Your task to perform on an android device: See recent photos Image 0: 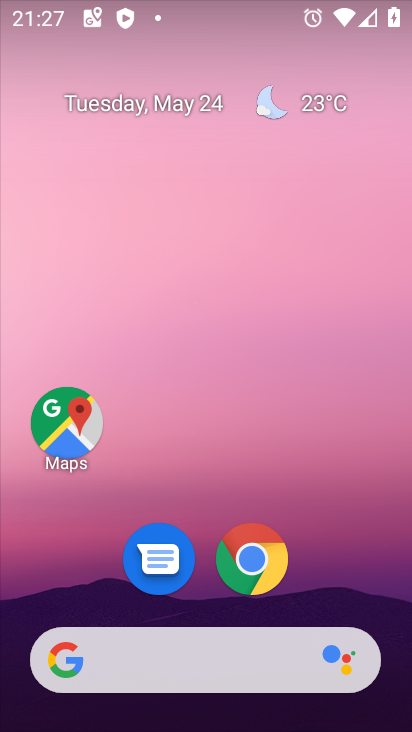
Step 0: drag from (371, 576) to (302, 160)
Your task to perform on an android device: See recent photos Image 1: 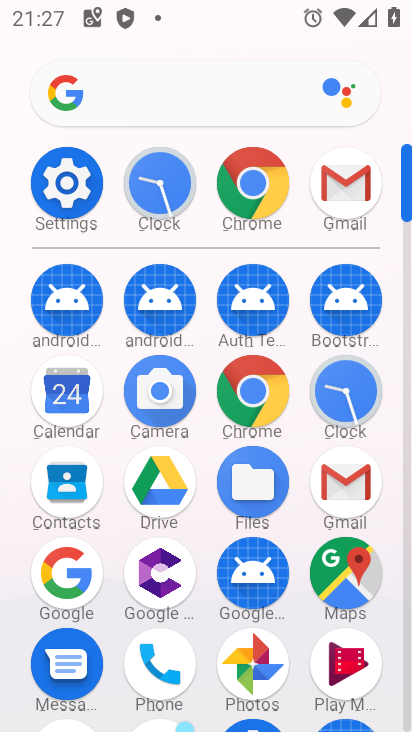
Step 1: click (262, 656)
Your task to perform on an android device: See recent photos Image 2: 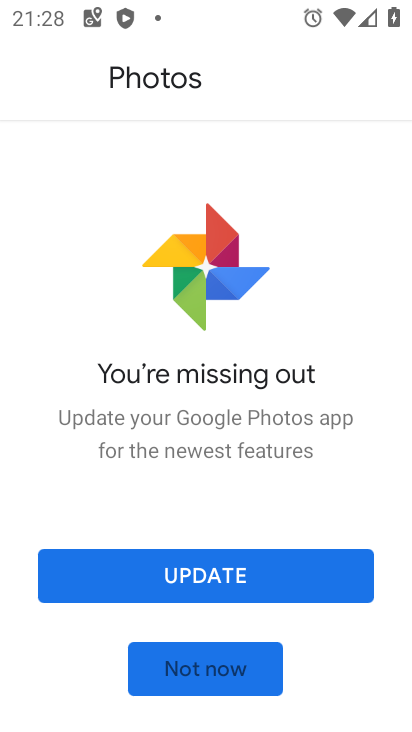
Step 2: click (229, 585)
Your task to perform on an android device: See recent photos Image 3: 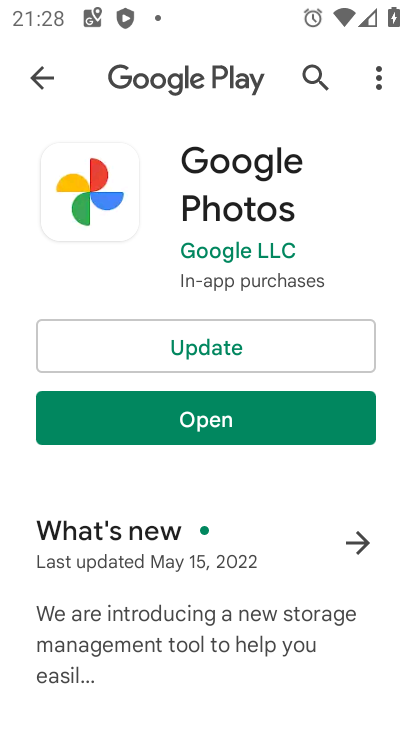
Step 3: click (219, 338)
Your task to perform on an android device: See recent photos Image 4: 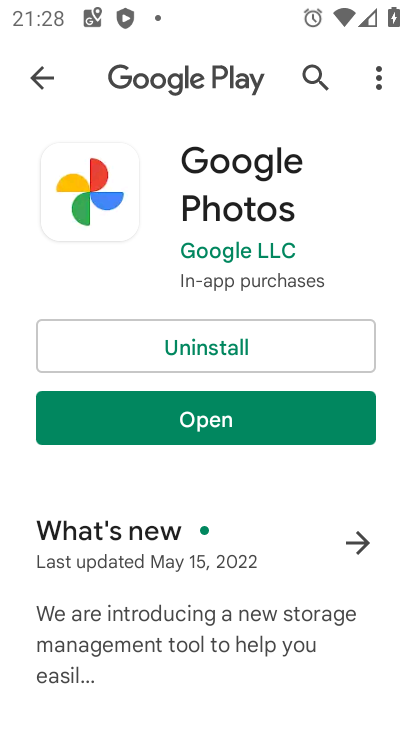
Step 4: task complete